Your task to perform on an android device: open device folders in google photos Image 0: 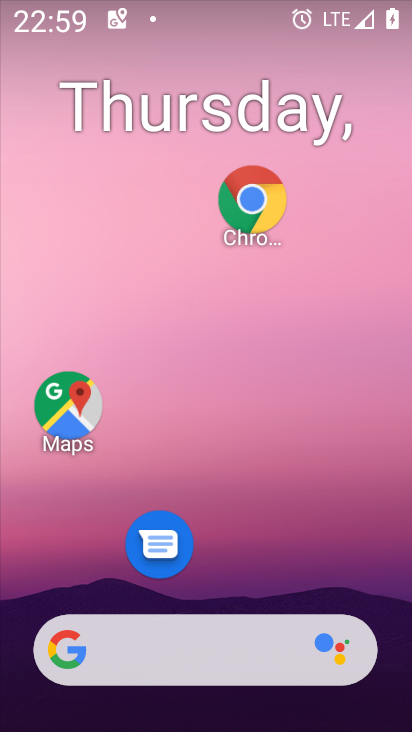
Step 0: drag from (238, 573) to (165, 231)
Your task to perform on an android device: open device folders in google photos Image 1: 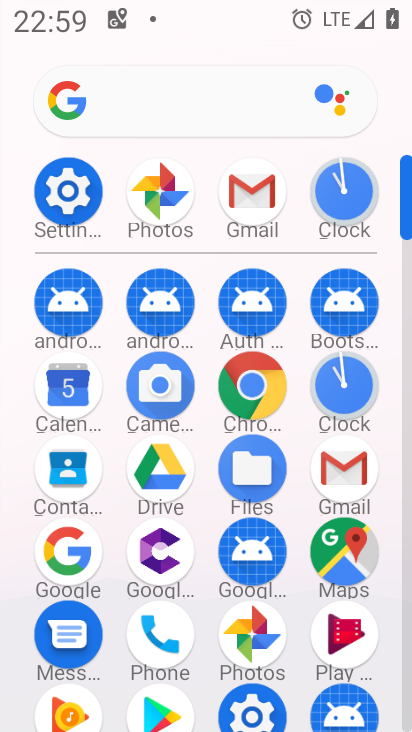
Step 1: click (245, 625)
Your task to perform on an android device: open device folders in google photos Image 2: 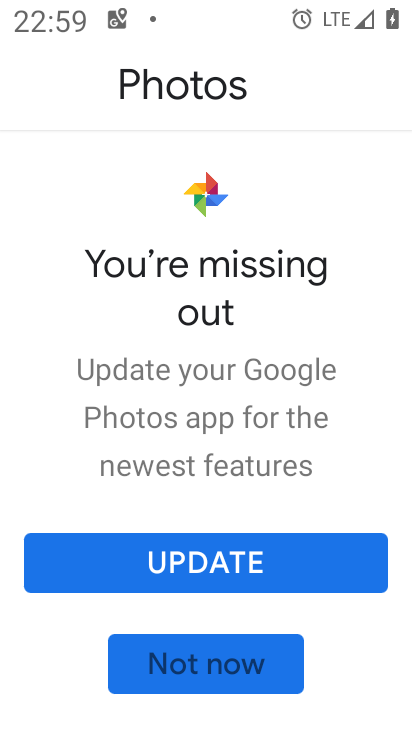
Step 2: click (191, 649)
Your task to perform on an android device: open device folders in google photos Image 3: 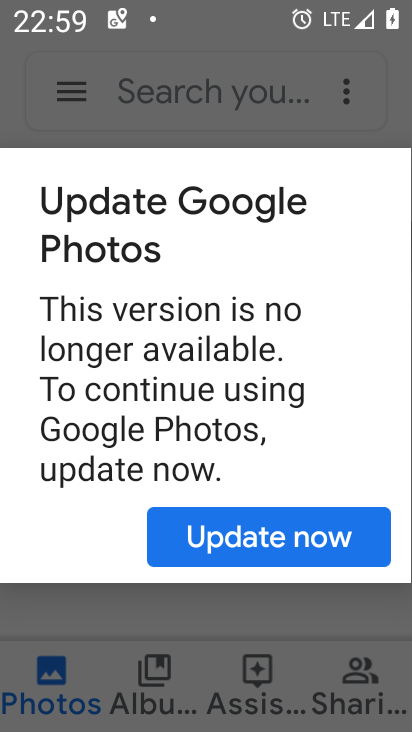
Step 3: click (155, 536)
Your task to perform on an android device: open device folders in google photos Image 4: 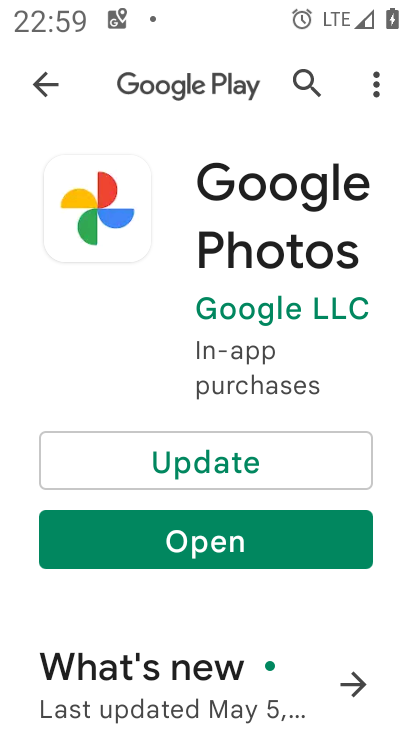
Step 4: click (164, 562)
Your task to perform on an android device: open device folders in google photos Image 5: 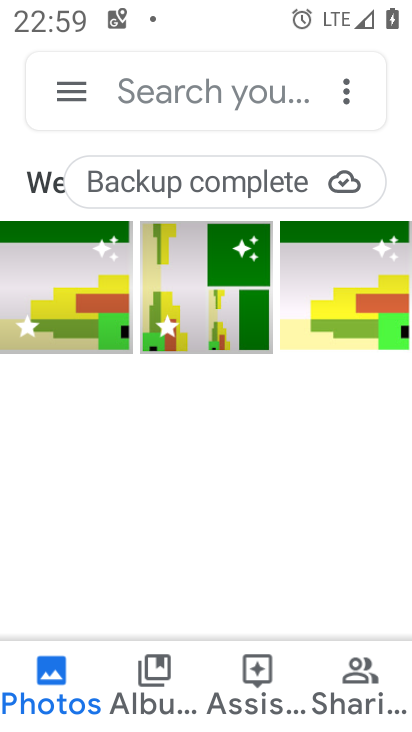
Step 5: click (58, 99)
Your task to perform on an android device: open device folders in google photos Image 6: 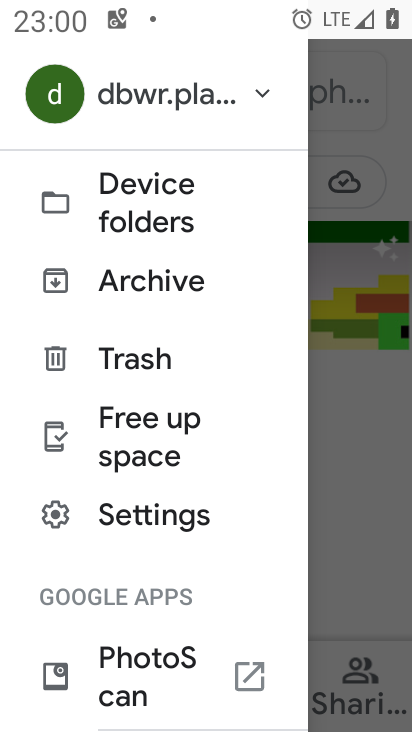
Step 6: click (101, 185)
Your task to perform on an android device: open device folders in google photos Image 7: 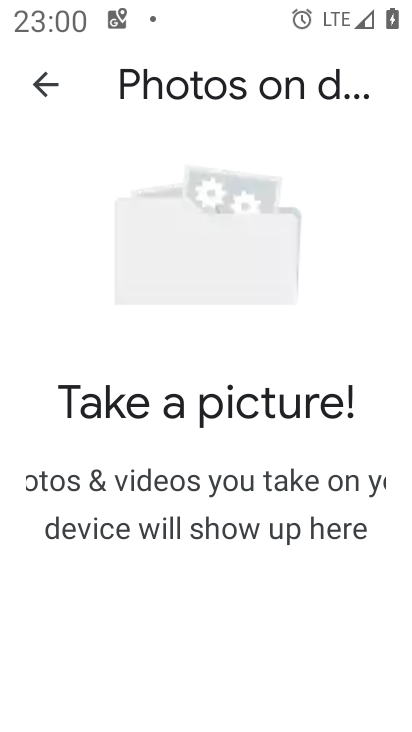
Step 7: task complete